Your task to perform on an android device: Go to Android settings Image 0: 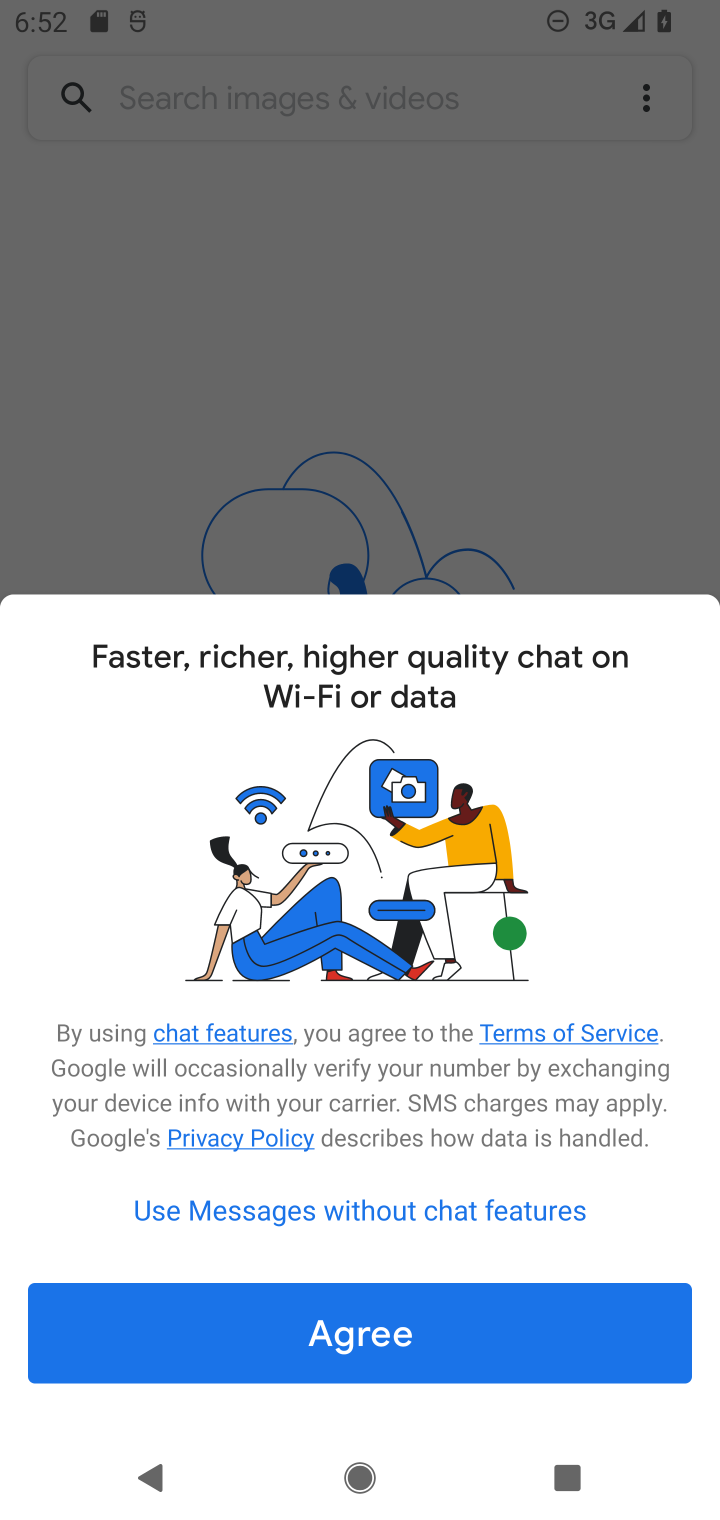
Step 0: press home button
Your task to perform on an android device: Go to Android settings Image 1: 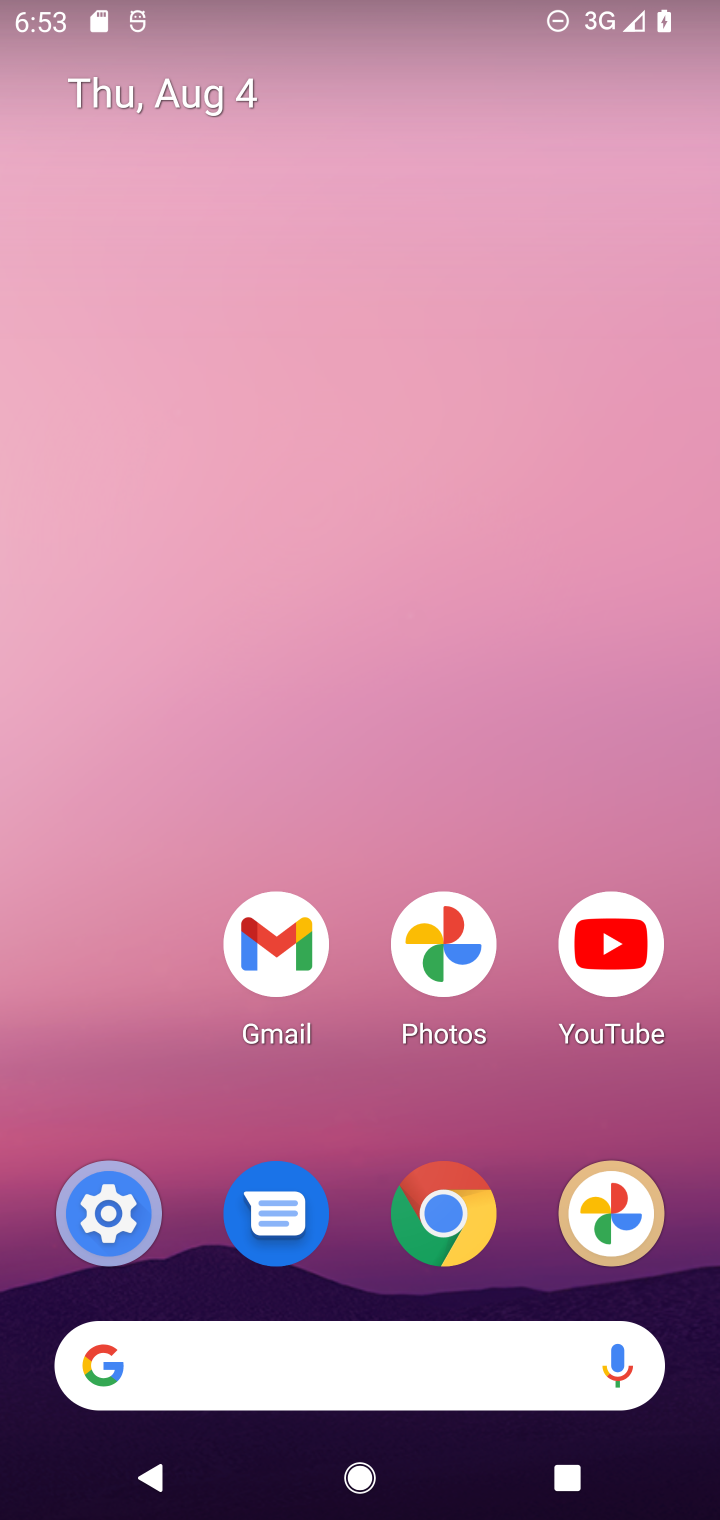
Step 1: drag from (110, 1059) to (124, 311)
Your task to perform on an android device: Go to Android settings Image 2: 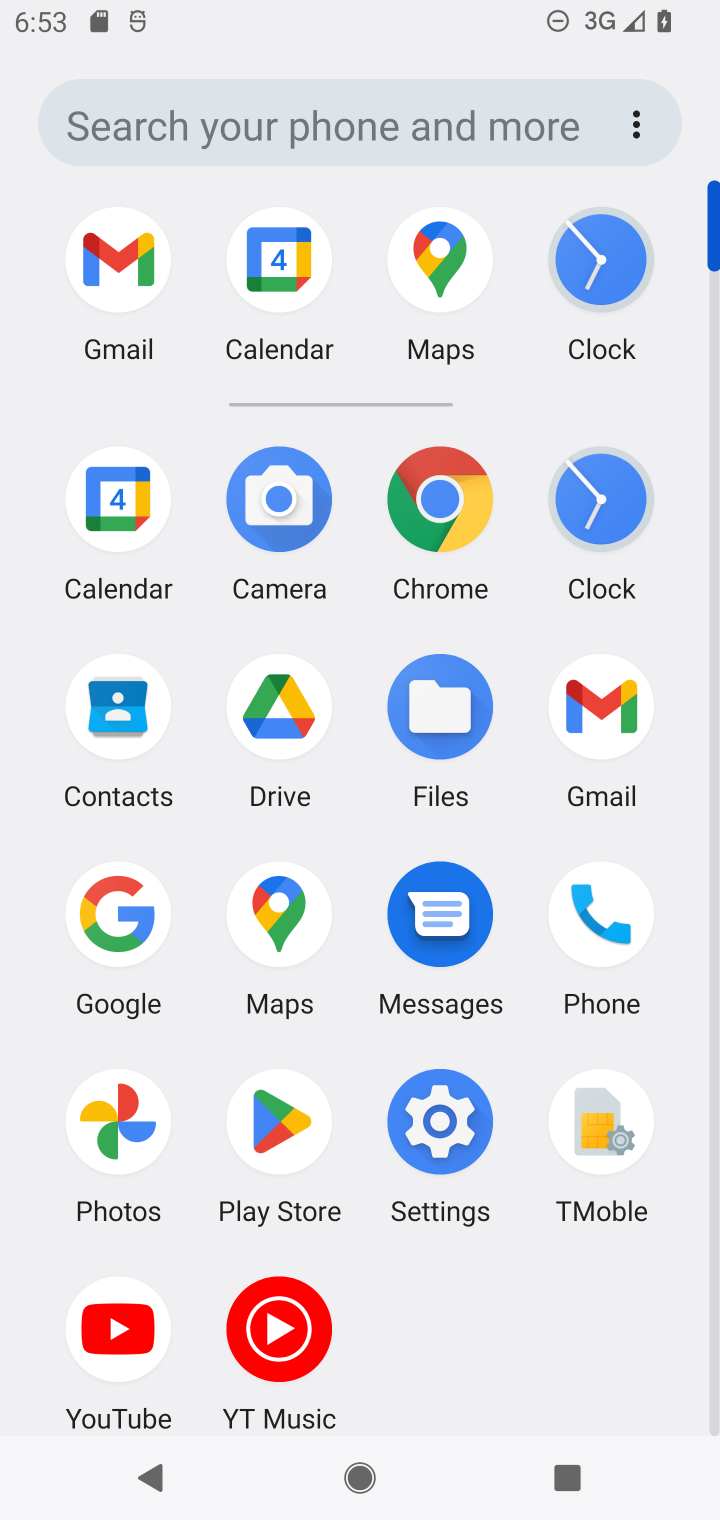
Step 2: click (447, 1107)
Your task to perform on an android device: Go to Android settings Image 3: 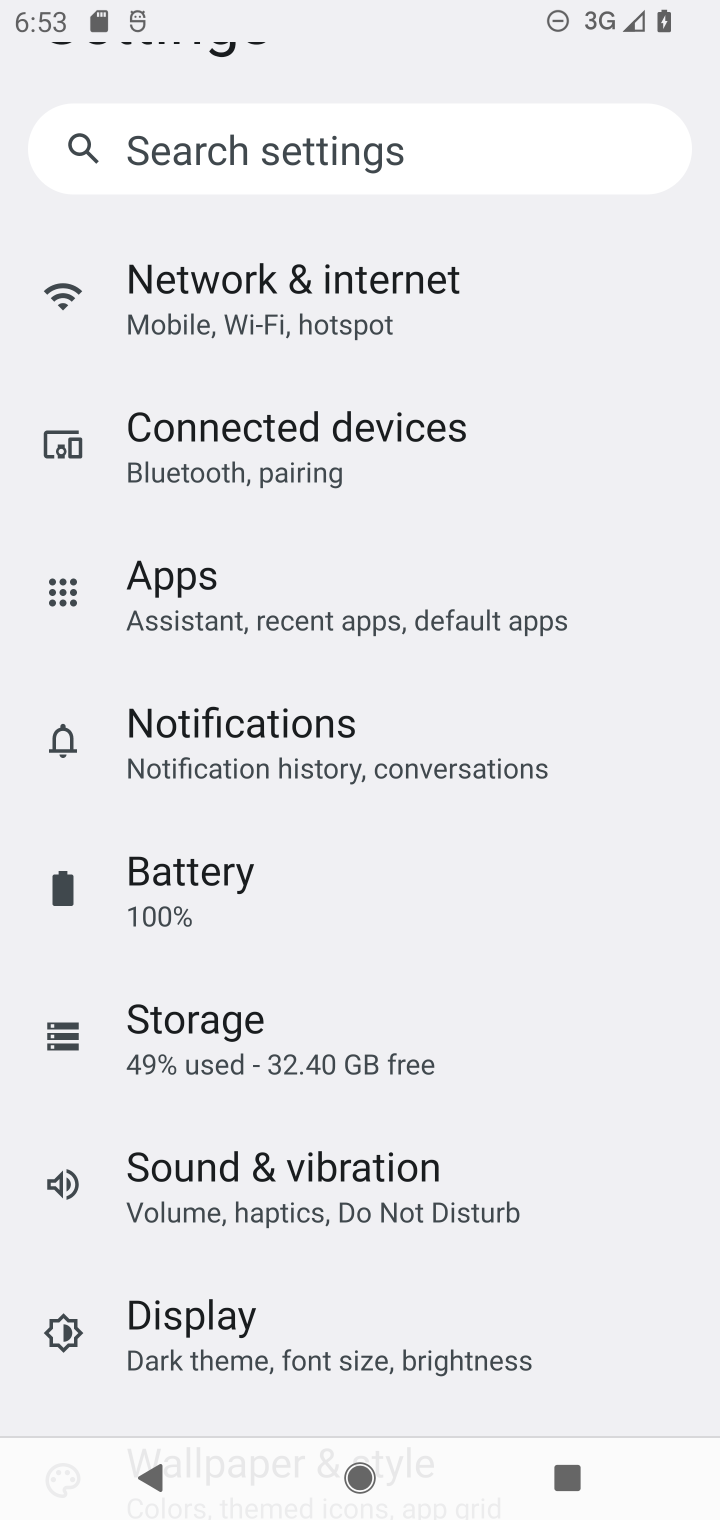
Step 3: drag from (581, 1088) to (622, 898)
Your task to perform on an android device: Go to Android settings Image 4: 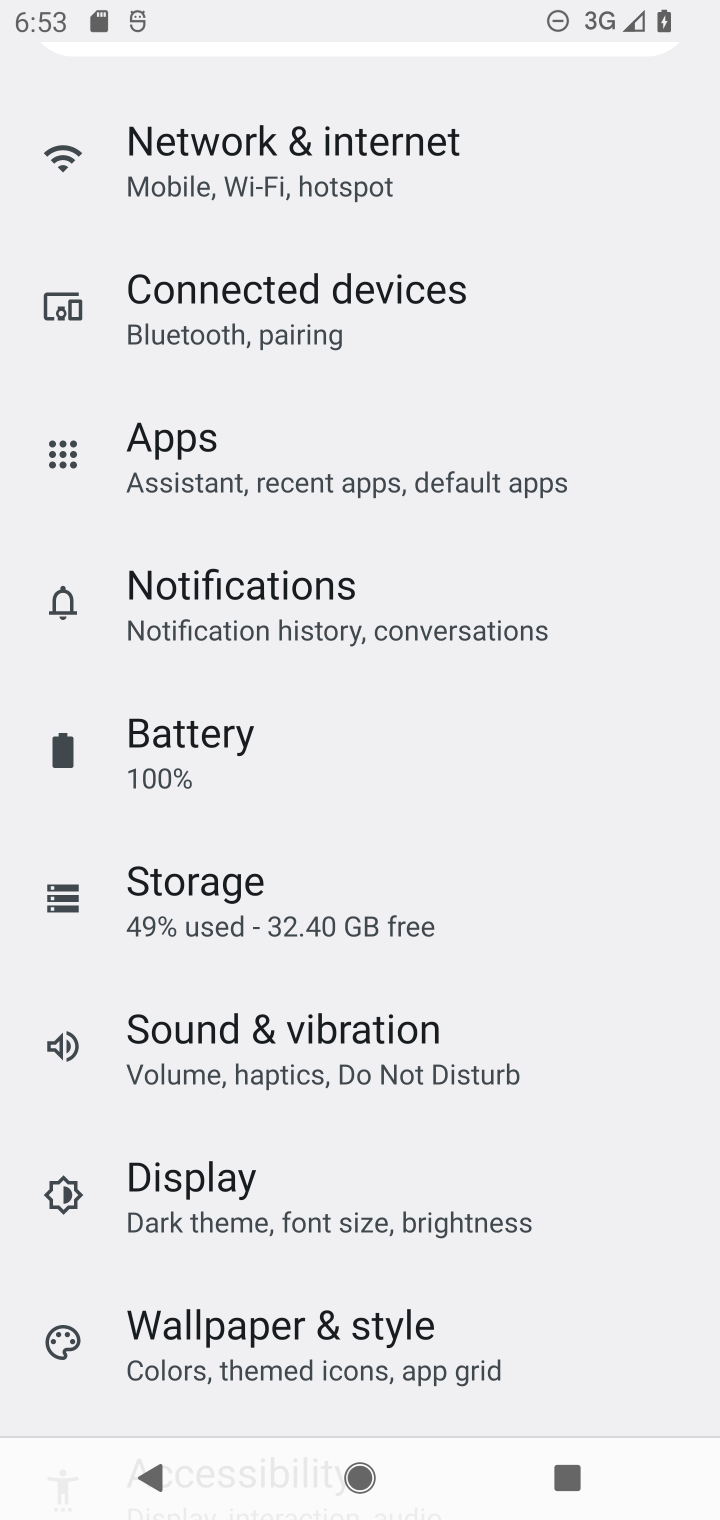
Step 4: drag from (542, 1000) to (553, 746)
Your task to perform on an android device: Go to Android settings Image 5: 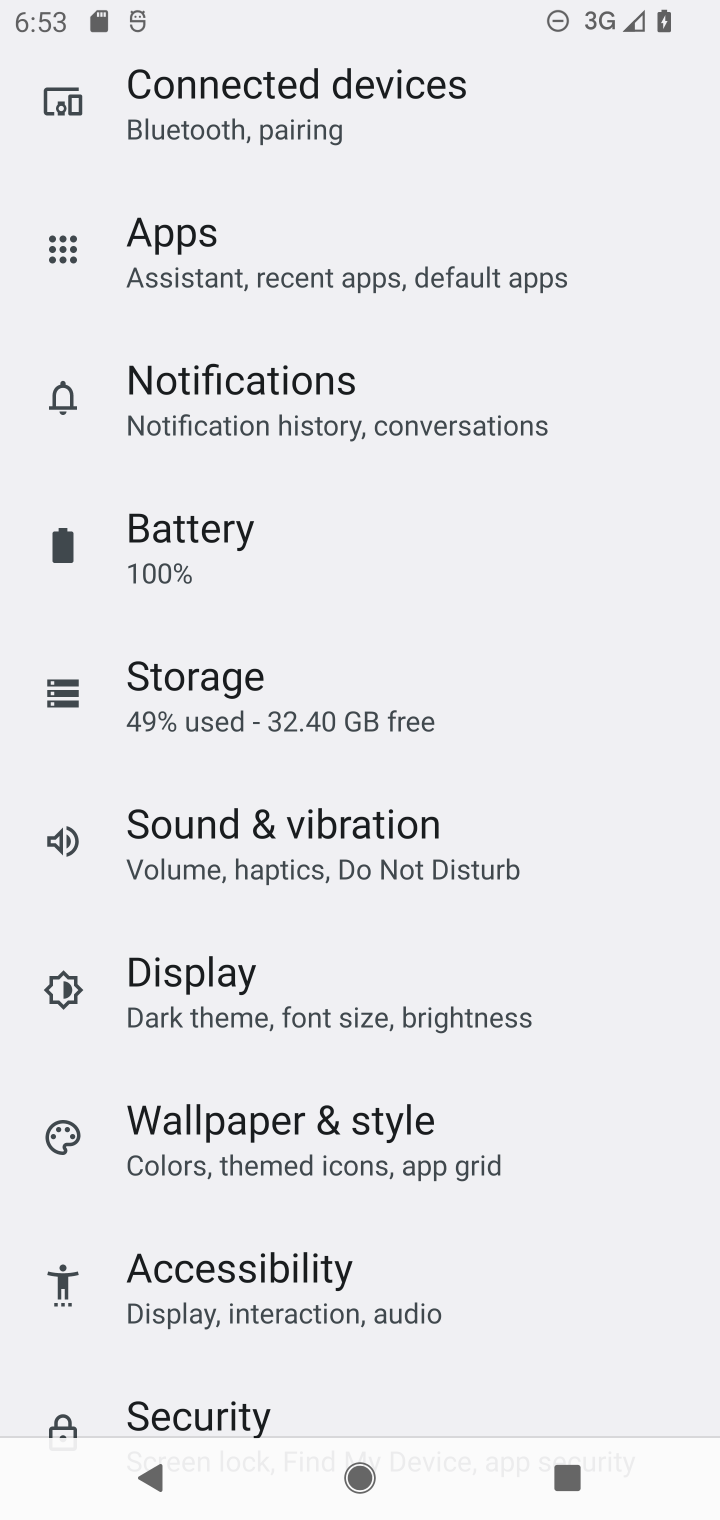
Step 5: drag from (596, 1122) to (615, 820)
Your task to perform on an android device: Go to Android settings Image 6: 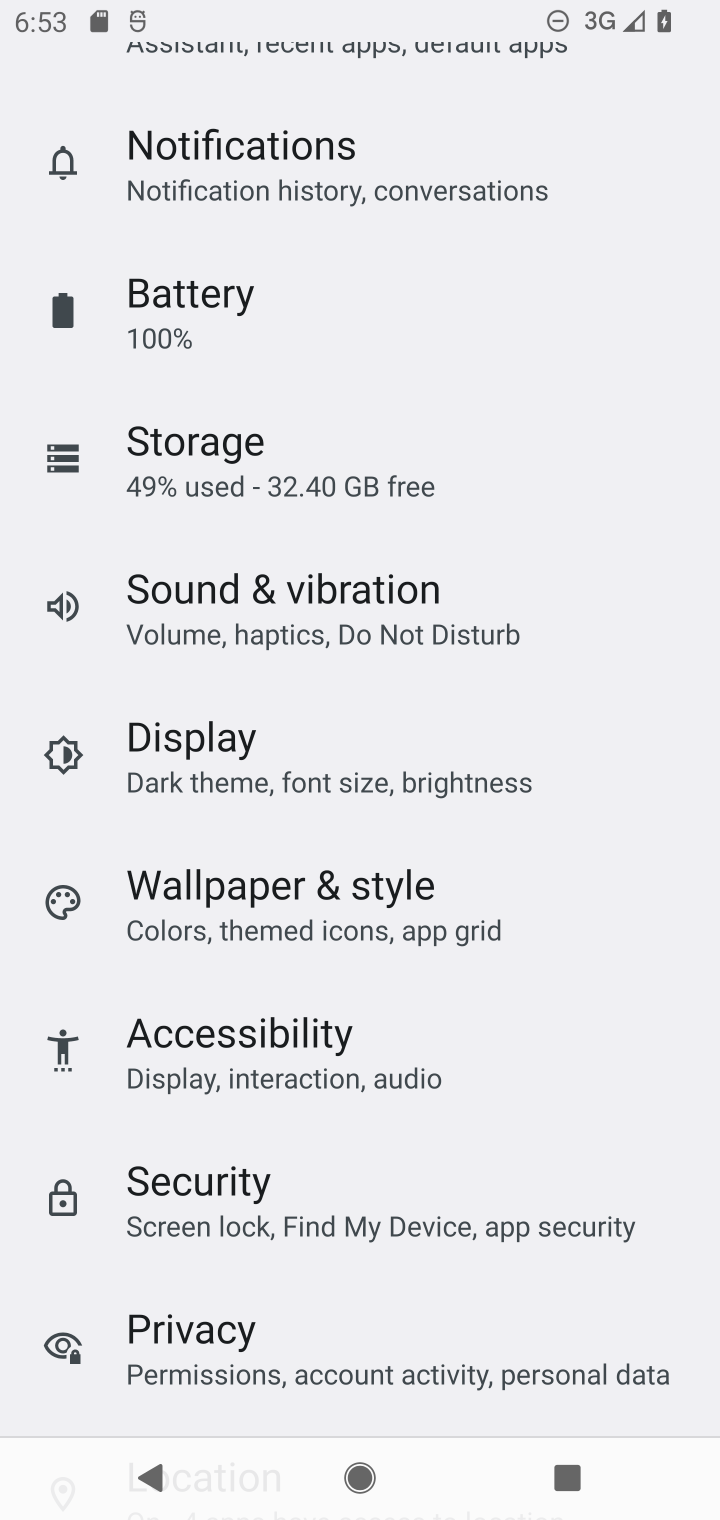
Step 6: drag from (622, 1180) to (625, 833)
Your task to perform on an android device: Go to Android settings Image 7: 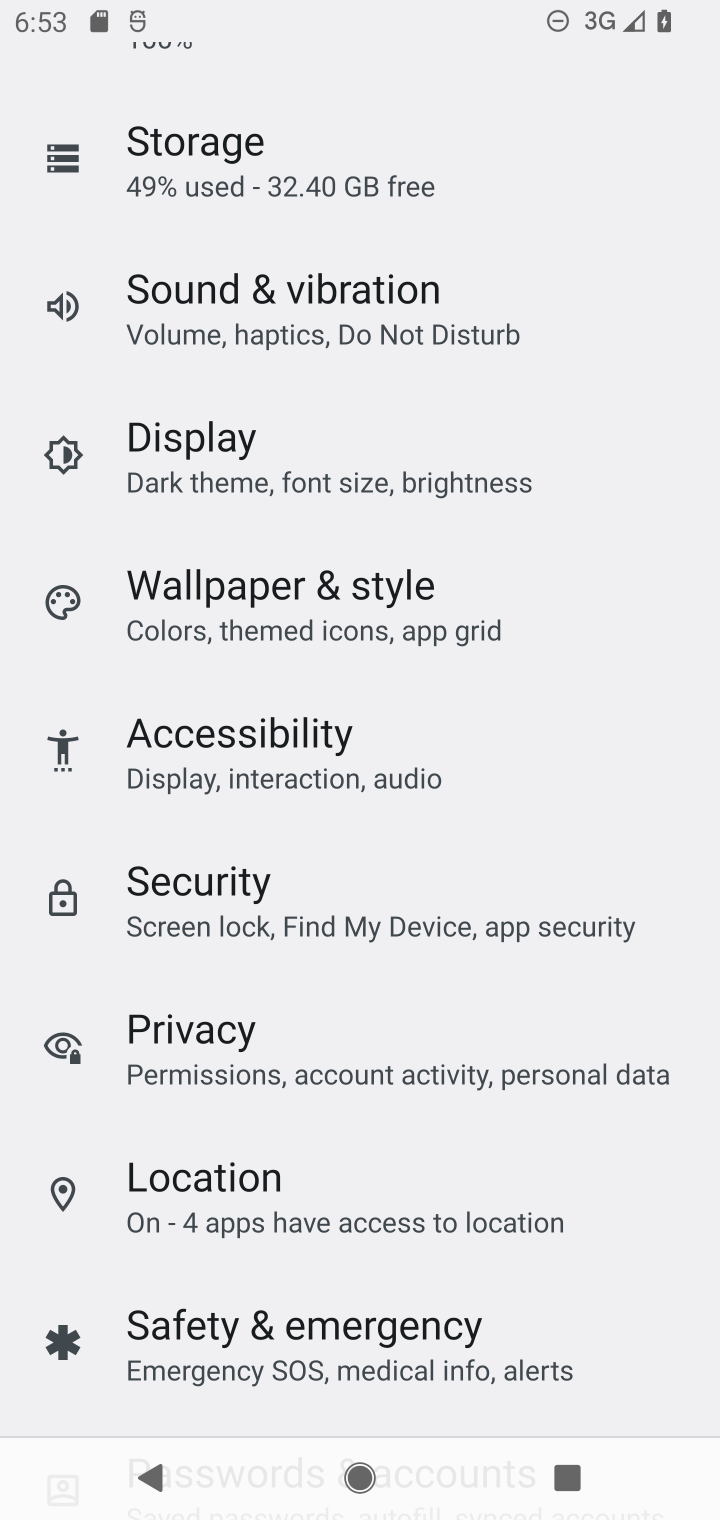
Step 7: drag from (625, 1263) to (631, 929)
Your task to perform on an android device: Go to Android settings Image 8: 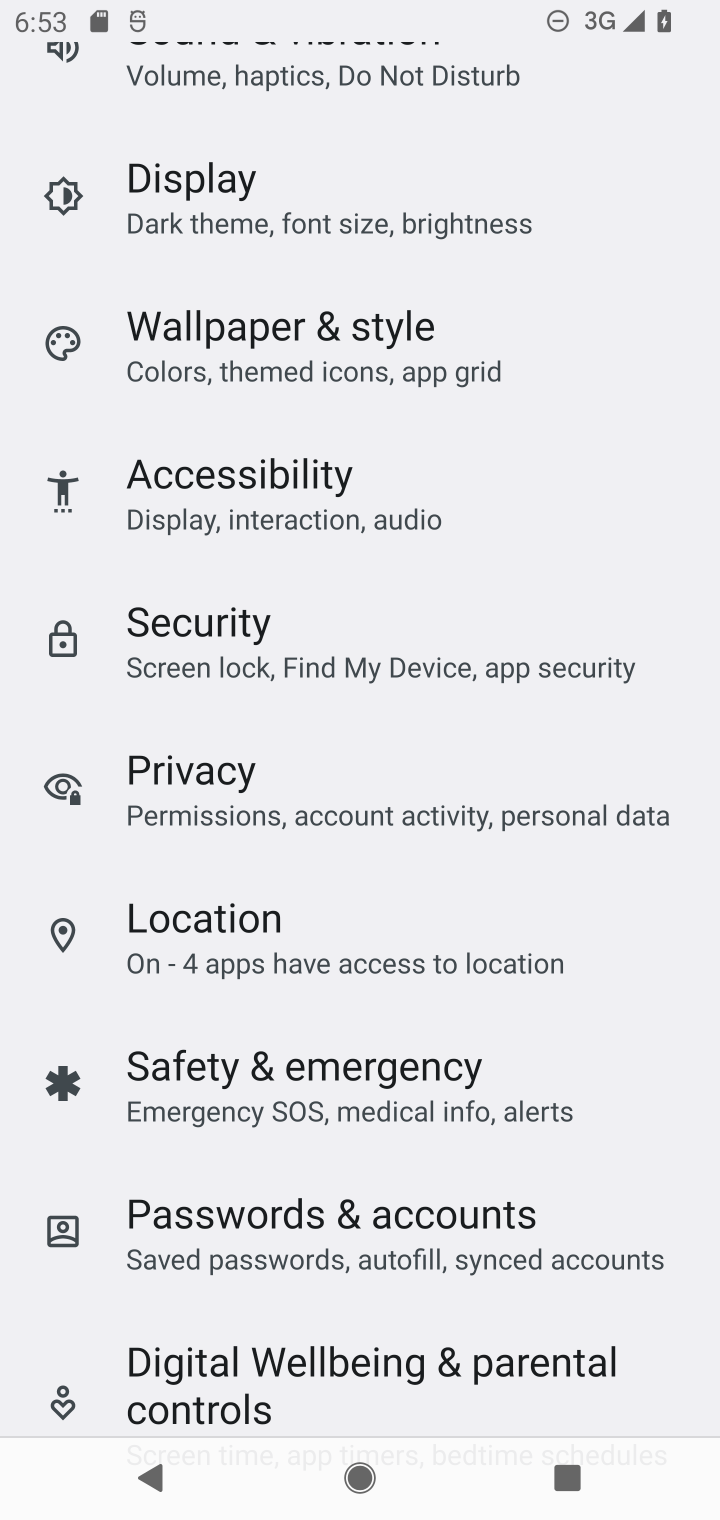
Step 8: drag from (645, 1315) to (614, 981)
Your task to perform on an android device: Go to Android settings Image 9: 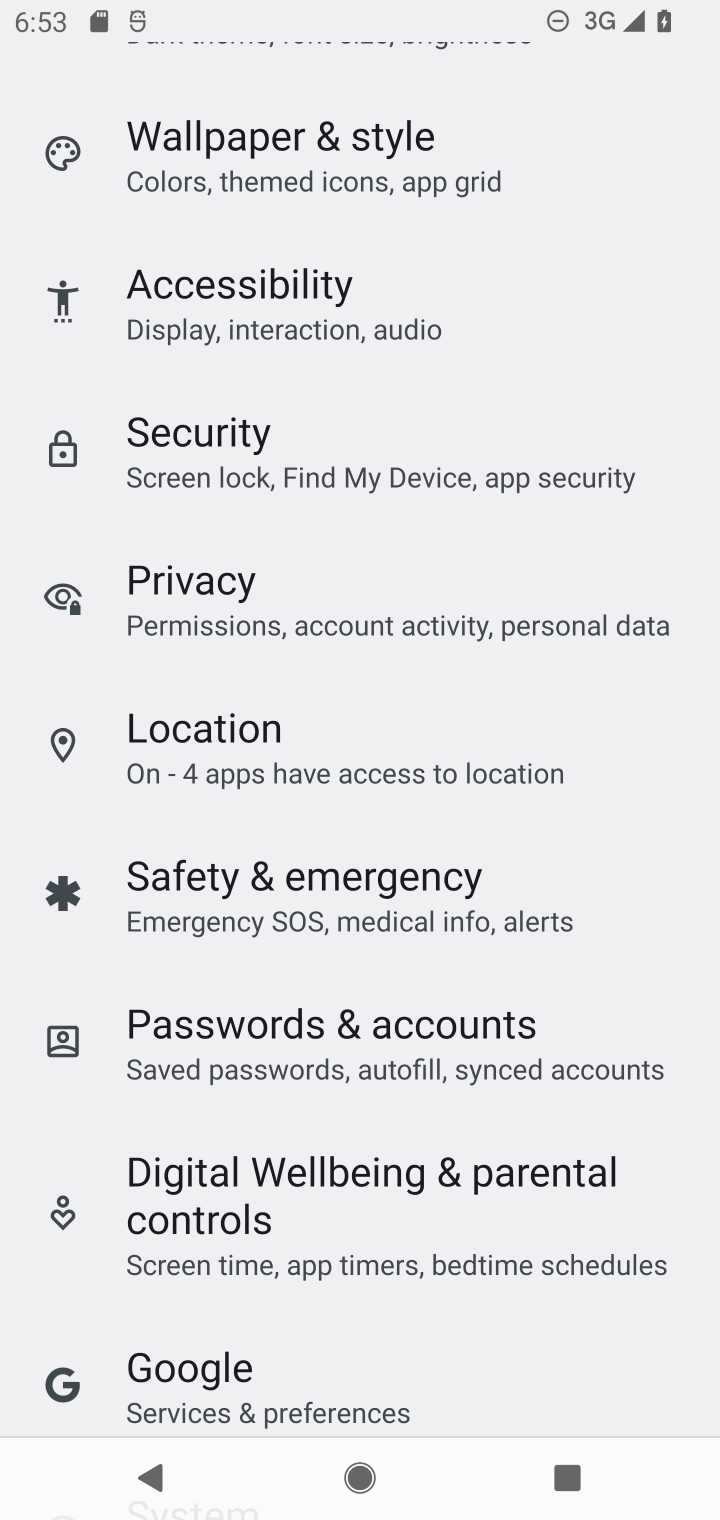
Step 9: drag from (515, 1276) to (553, 895)
Your task to perform on an android device: Go to Android settings Image 10: 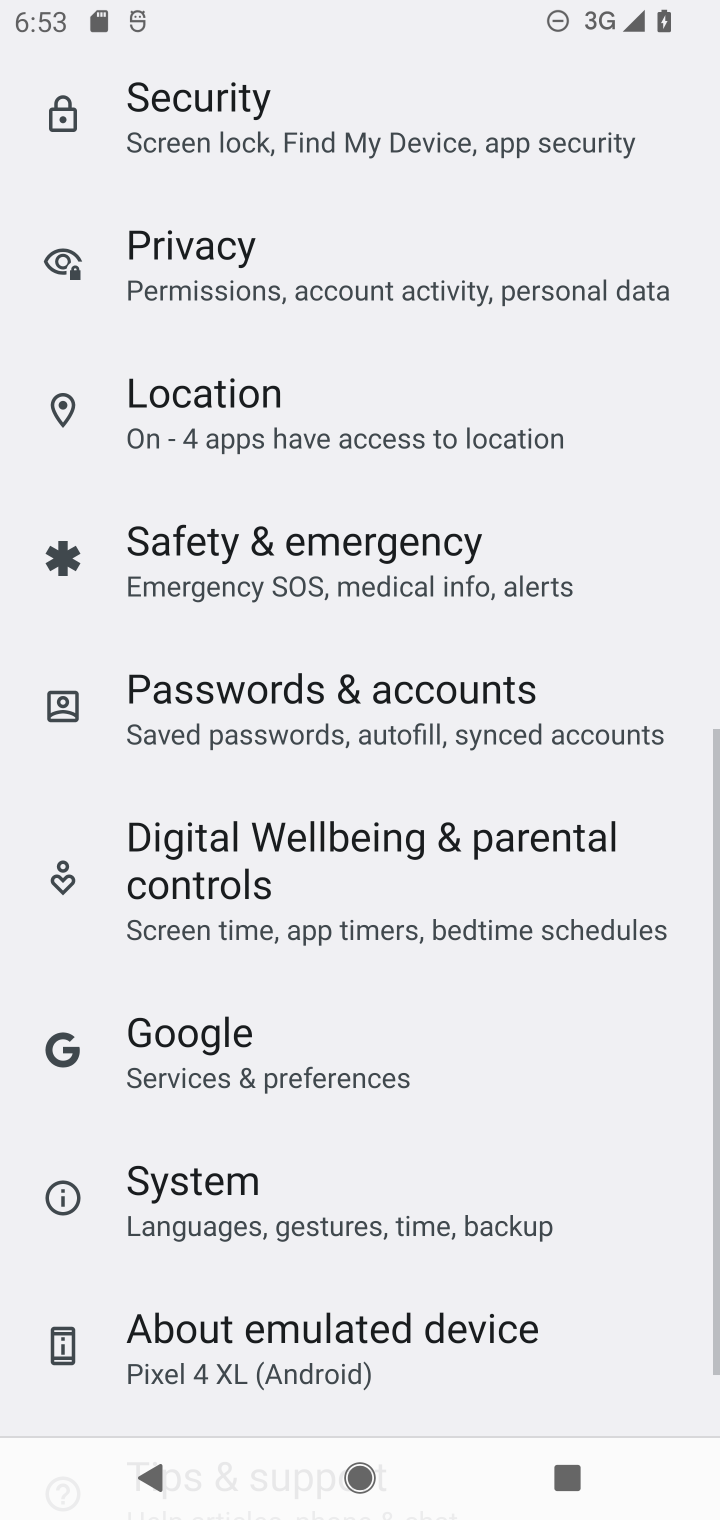
Step 10: click (507, 1207)
Your task to perform on an android device: Go to Android settings Image 11: 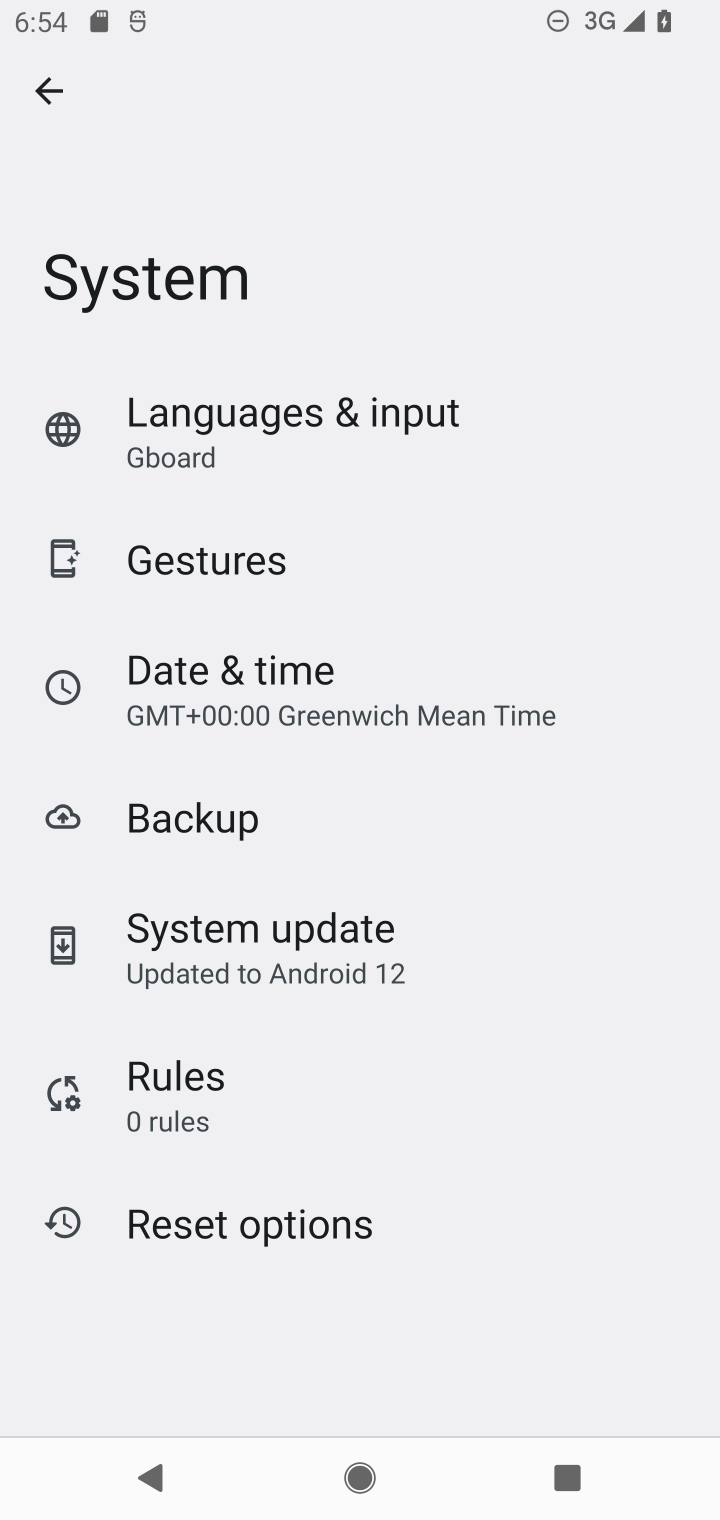
Step 11: task complete